Your task to perform on an android device: change the clock display to digital Image 0: 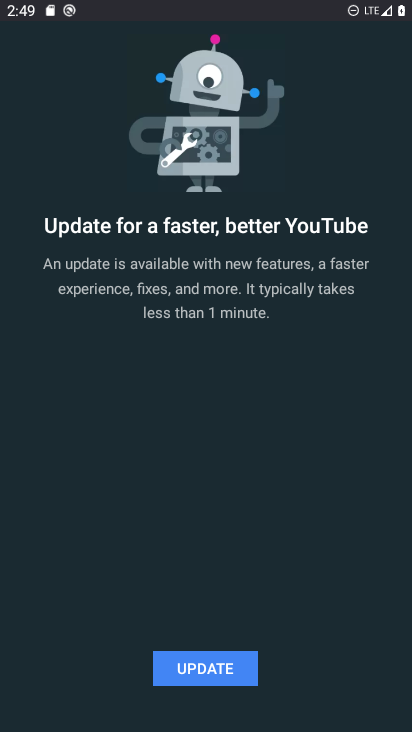
Step 0: press home button
Your task to perform on an android device: change the clock display to digital Image 1: 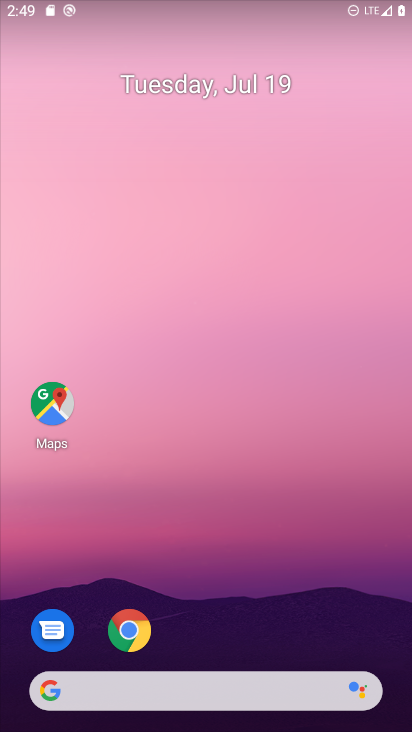
Step 1: drag from (374, 645) to (303, 91)
Your task to perform on an android device: change the clock display to digital Image 2: 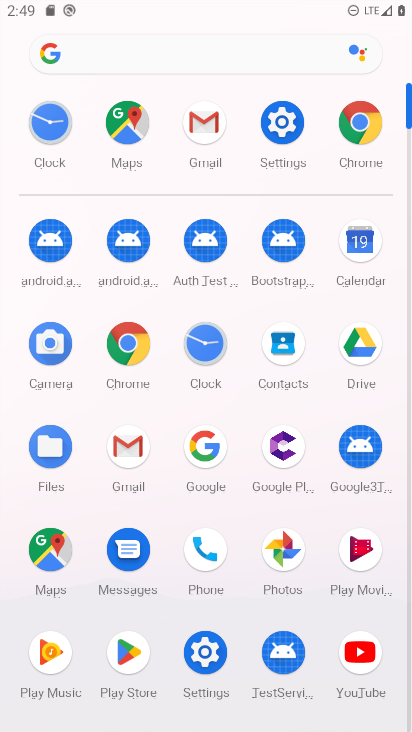
Step 2: click (206, 346)
Your task to perform on an android device: change the clock display to digital Image 3: 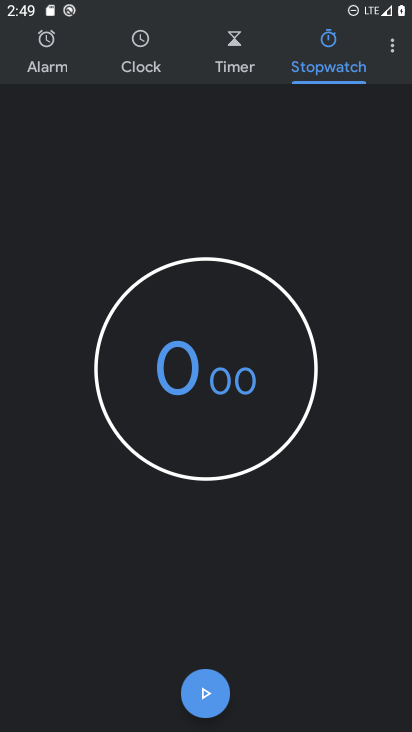
Step 3: click (389, 52)
Your task to perform on an android device: change the clock display to digital Image 4: 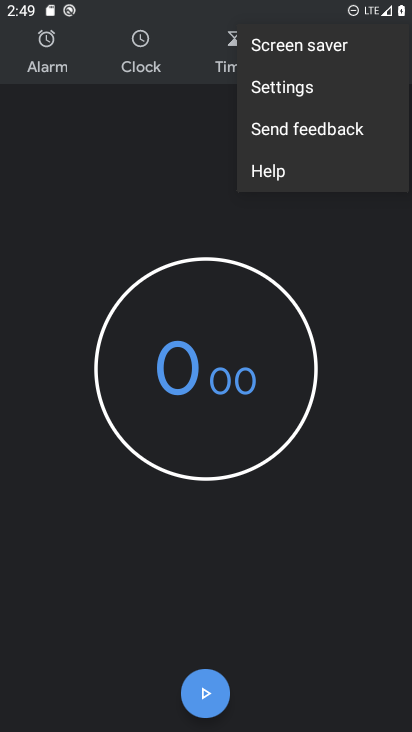
Step 4: click (289, 84)
Your task to perform on an android device: change the clock display to digital Image 5: 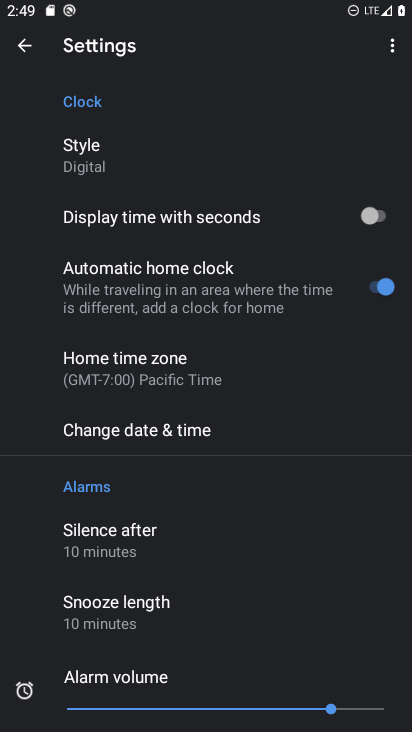
Step 5: task complete